Your task to perform on an android device: clear all cookies in the chrome app Image 0: 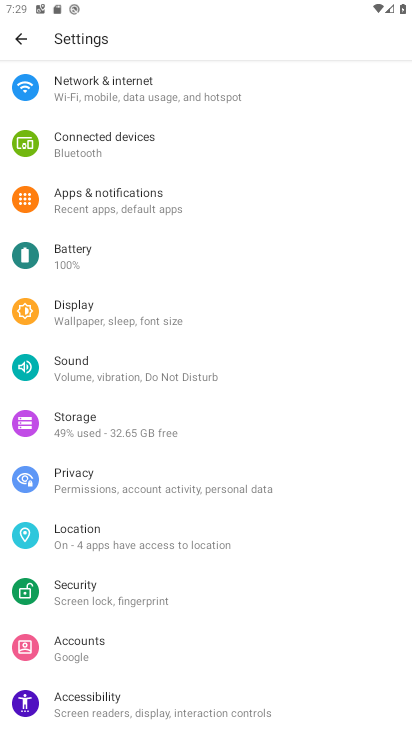
Step 0: press home button
Your task to perform on an android device: clear all cookies in the chrome app Image 1: 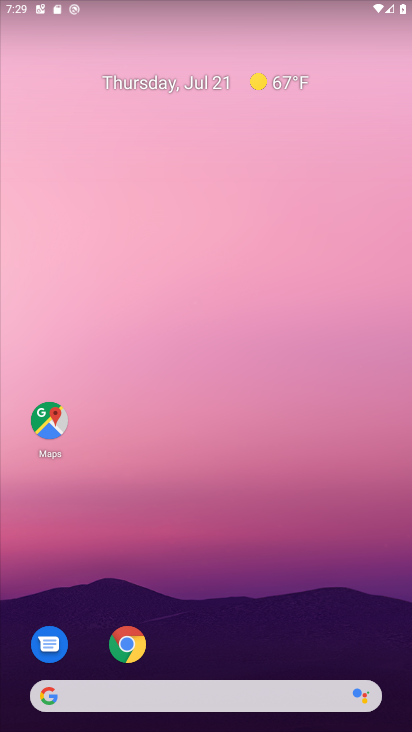
Step 1: drag from (200, 651) to (252, 39)
Your task to perform on an android device: clear all cookies in the chrome app Image 2: 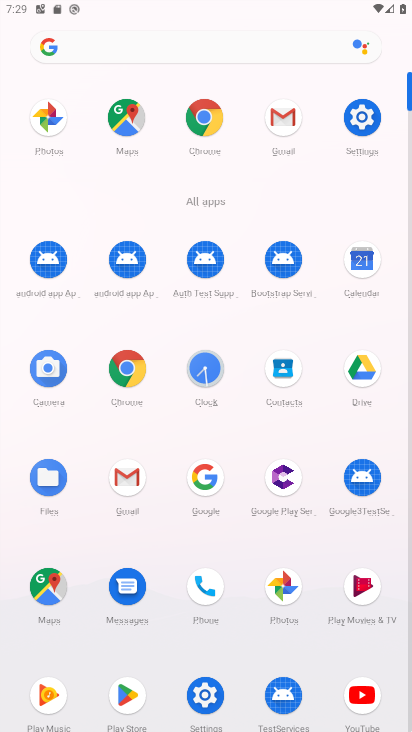
Step 2: click (139, 381)
Your task to perform on an android device: clear all cookies in the chrome app Image 3: 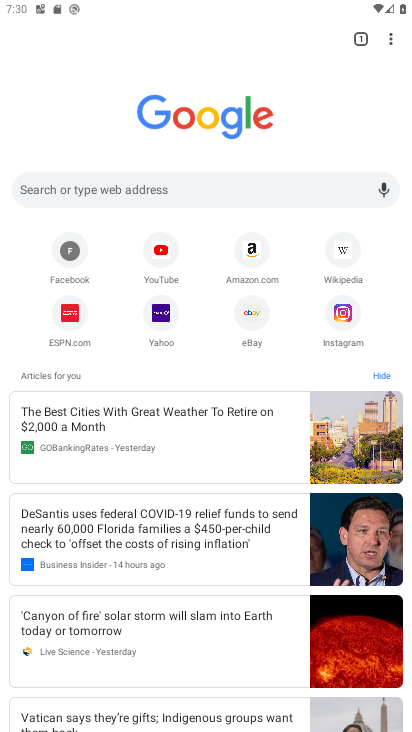
Step 3: click (386, 45)
Your task to perform on an android device: clear all cookies in the chrome app Image 4: 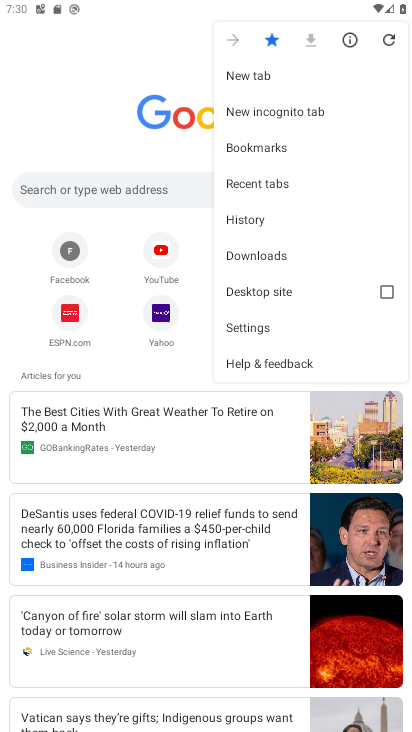
Step 4: click (254, 219)
Your task to perform on an android device: clear all cookies in the chrome app Image 5: 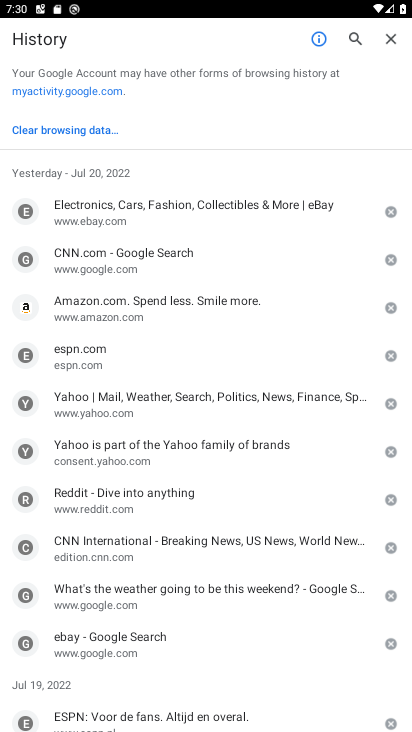
Step 5: click (79, 131)
Your task to perform on an android device: clear all cookies in the chrome app Image 6: 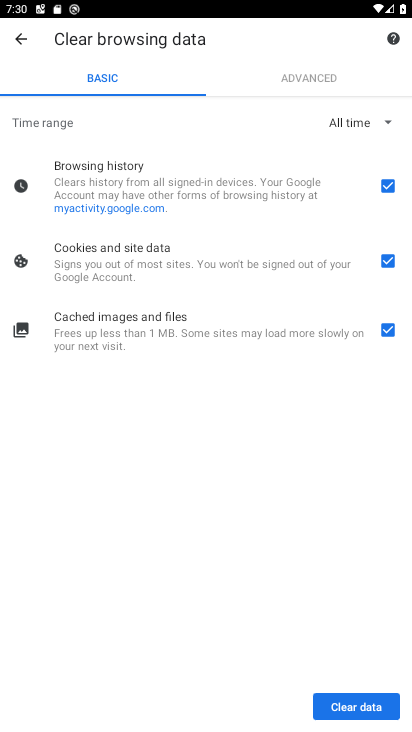
Step 6: click (370, 707)
Your task to perform on an android device: clear all cookies in the chrome app Image 7: 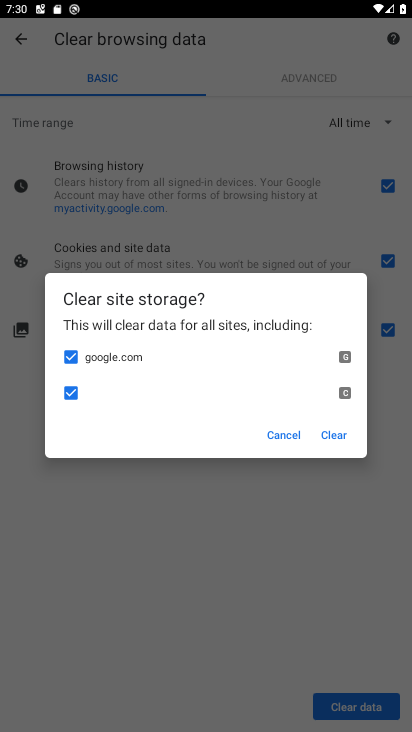
Step 7: click (332, 438)
Your task to perform on an android device: clear all cookies in the chrome app Image 8: 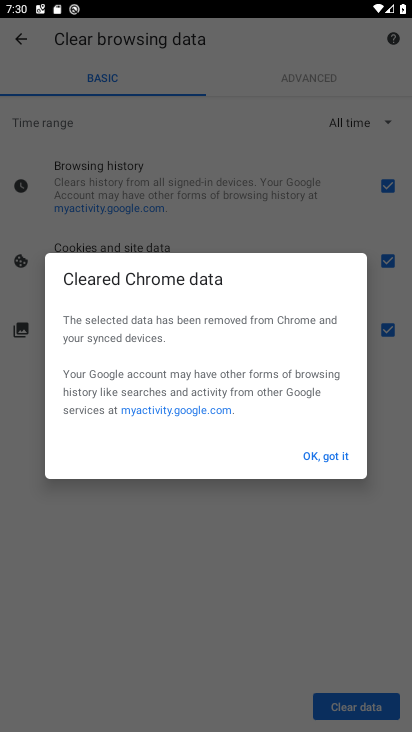
Step 8: click (316, 455)
Your task to perform on an android device: clear all cookies in the chrome app Image 9: 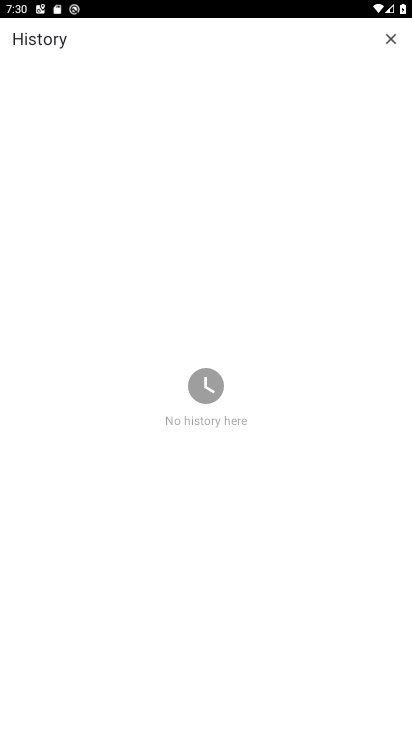
Step 9: task complete